Your task to perform on an android device: Play the last video I watched on Youtube Image 0: 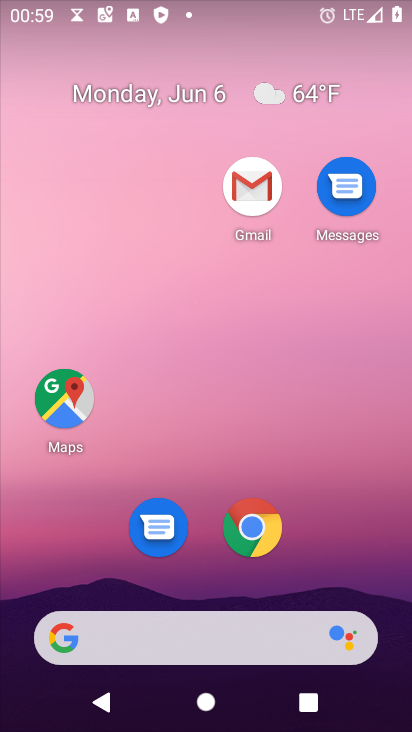
Step 0: drag from (325, 529) to (297, 95)
Your task to perform on an android device: Play the last video I watched on Youtube Image 1: 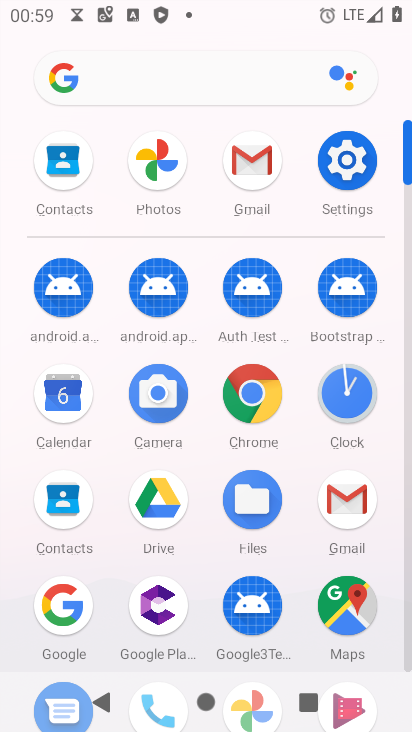
Step 1: drag from (285, 632) to (333, 252)
Your task to perform on an android device: Play the last video I watched on Youtube Image 2: 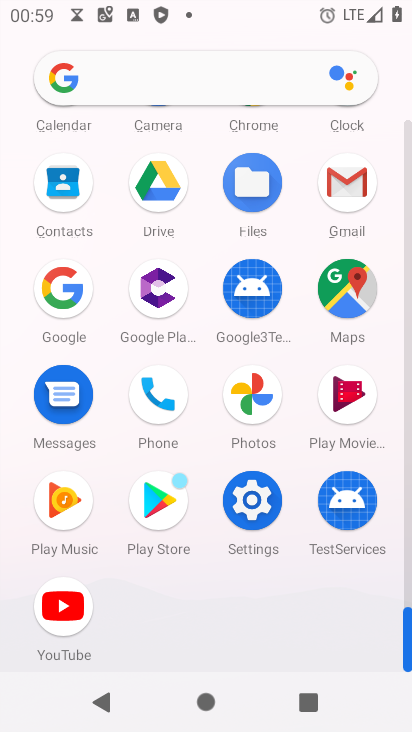
Step 2: click (60, 593)
Your task to perform on an android device: Play the last video I watched on Youtube Image 3: 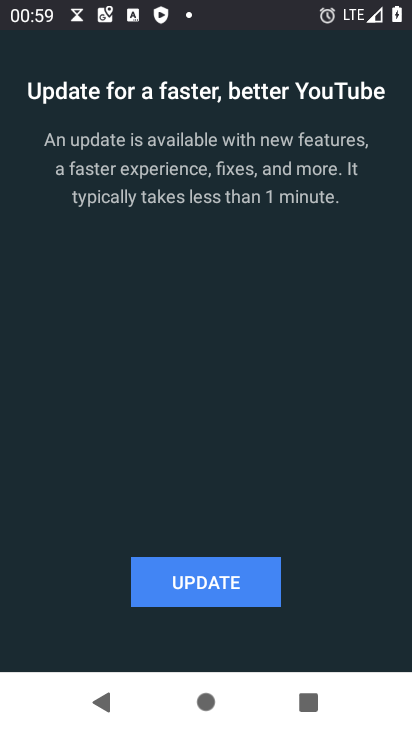
Step 3: click (253, 585)
Your task to perform on an android device: Play the last video I watched on Youtube Image 4: 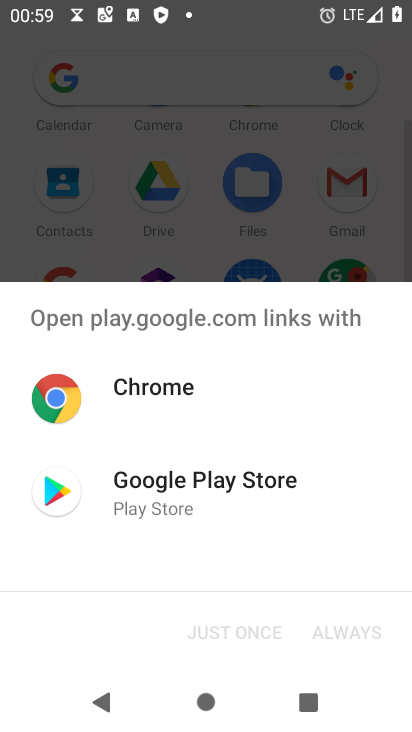
Step 4: click (268, 494)
Your task to perform on an android device: Play the last video I watched on Youtube Image 5: 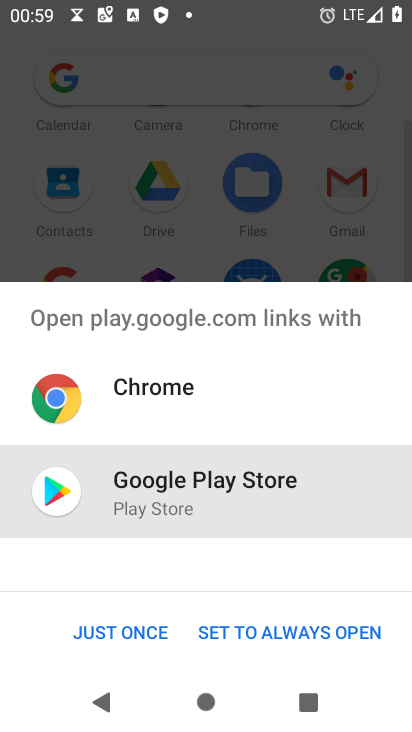
Step 5: click (317, 628)
Your task to perform on an android device: Play the last video I watched on Youtube Image 6: 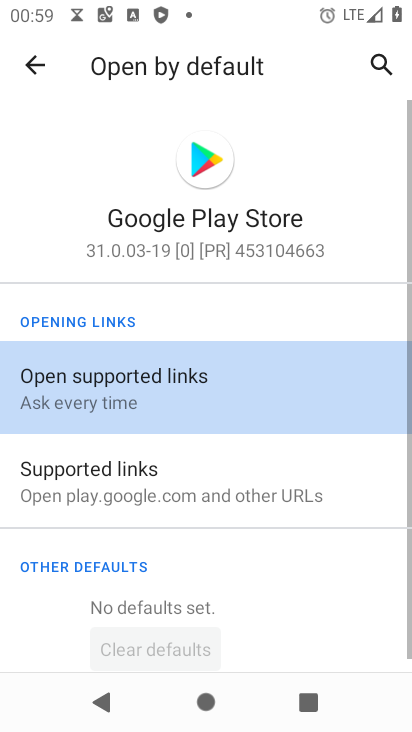
Step 6: drag from (285, 585) to (273, 207)
Your task to perform on an android device: Play the last video I watched on Youtube Image 7: 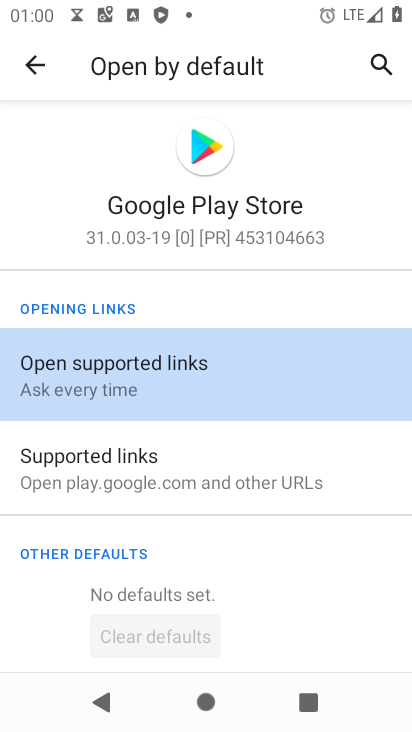
Step 7: click (246, 380)
Your task to perform on an android device: Play the last video I watched on Youtube Image 8: 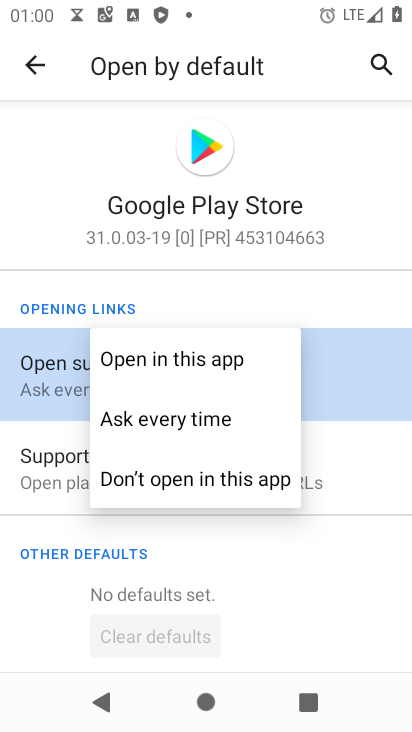
Step 8: click (179, 354)
Your task to perform on an android device: Play the last video I watched on Youtube Image 9: 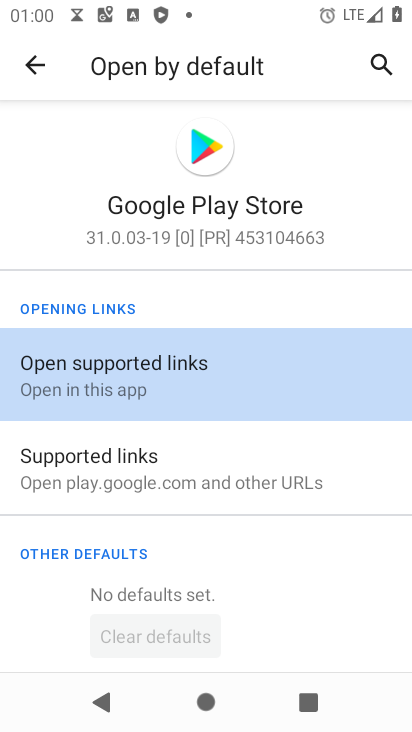
Step 9: click (216, 481)
Your task to perform on an android device: Play the last video I watched on Youtube Image 10: 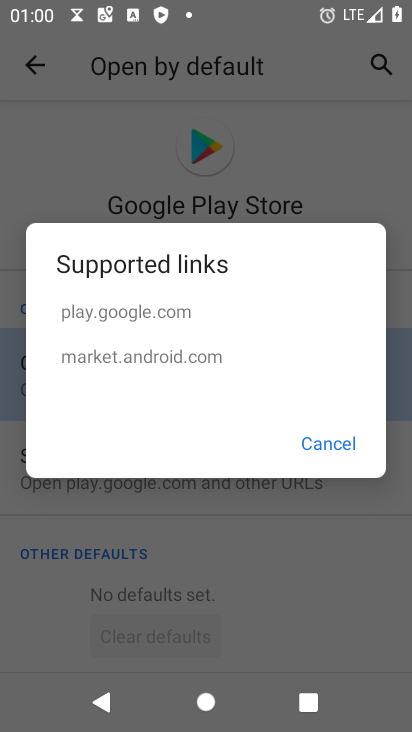
Step 10: click (315, 440)
Your task to perform on an android device: Play the last video I watched on Youtube Image 11: 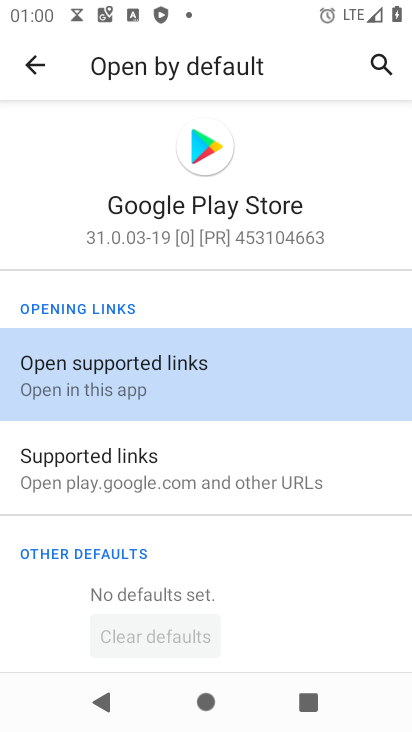
Step 11: click (152, 475)
Your task to perform on an android device: Play the last video I watched on Youtube Image 12: 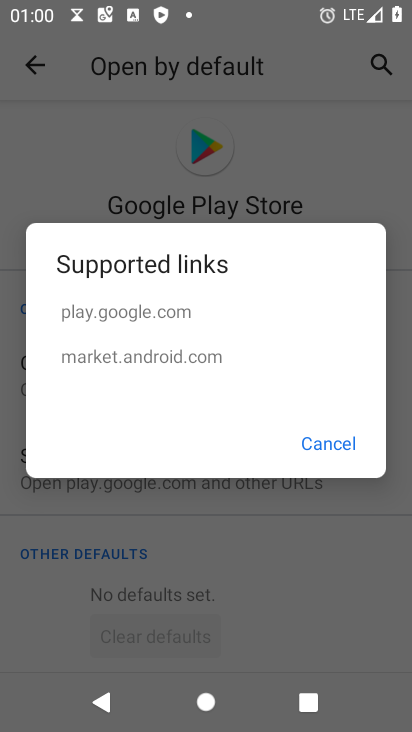
Step 12: click (166, 293)
Your task to perform on an android device: Play the last video I watched on Youtube Image 13: 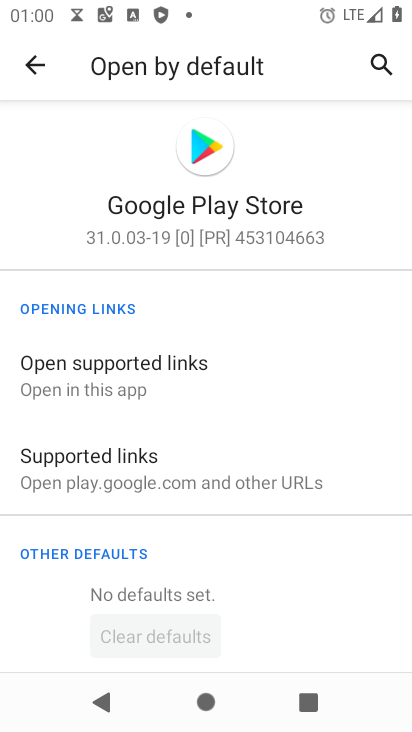
Step 13: drag from (267, 607) to (260, 257)
Your task to perform on an android device: Play the last video I watched on Youtube Image 14: 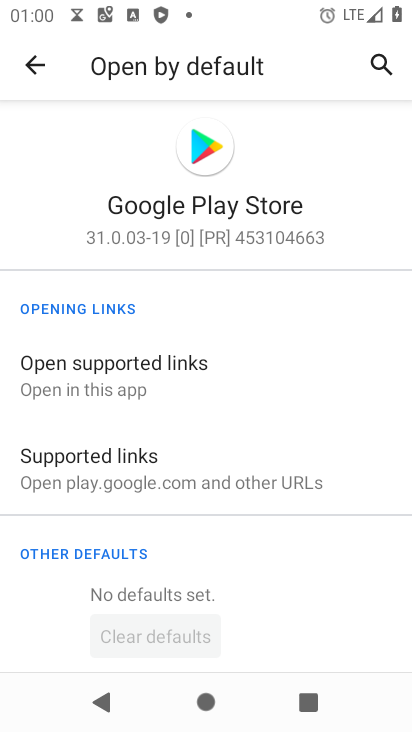
Step 14: click (163, 587)
Your task to perform on an android device: Play the last video I watched on Youtube Image 15: 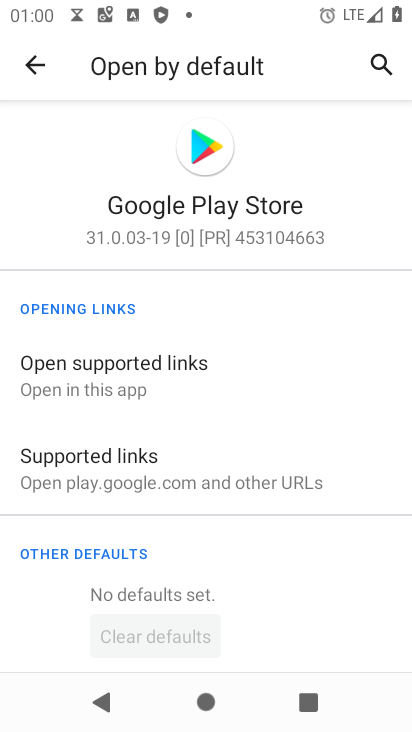
Step 15: press back button
Your task to perform on an android device: Play the last video I watched on Youtube Image 16: 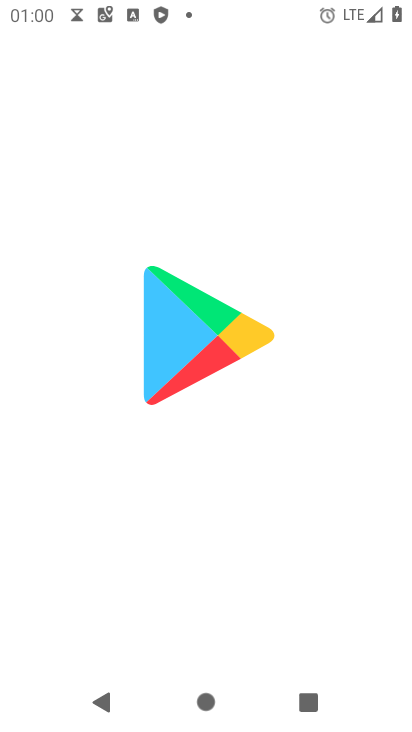
Step 16: click (278, 387)
Your task to perform on an android device: Play the last video I watched on Youtube Image 17: 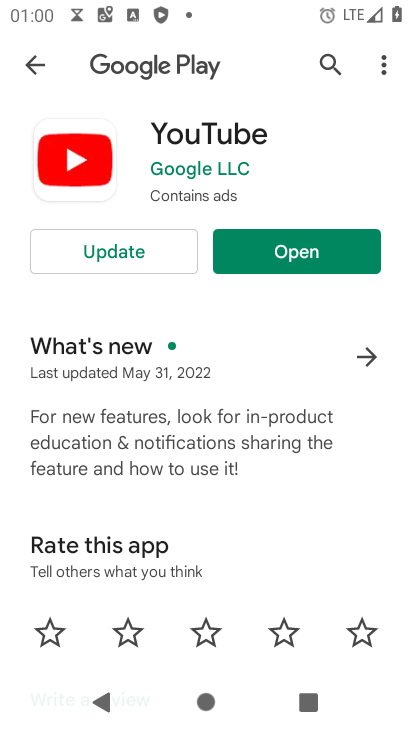
Step 17: click (107, 258)
Your task to perform on an android device: Play the last video I watched on Youtube Image 18: 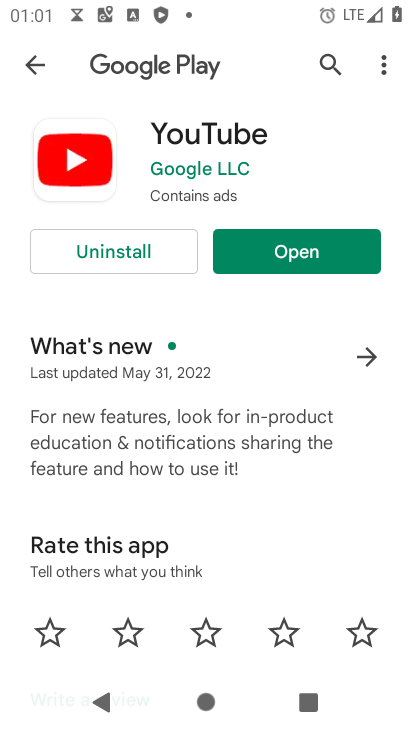
Step 18: click (264, 246)
Your task to perform on an android device: Play the last video I watched on Youtube Image 19: 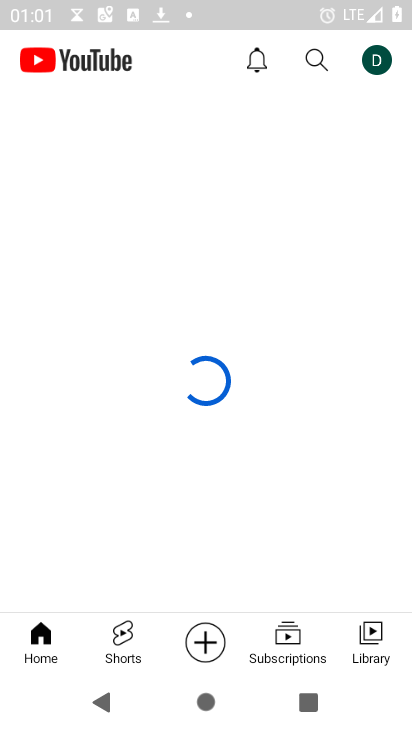
Step 19: click (365, 630)
Your task to perform on an android device: Play the last video I watched on Youtube Image 20: 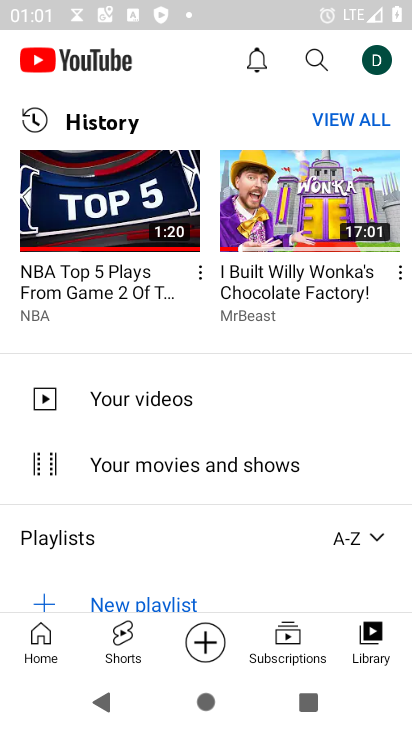
Step 20: click (101, 233)
Your task to perform on an android device: Play the last video I watched on Youtube Image 21: 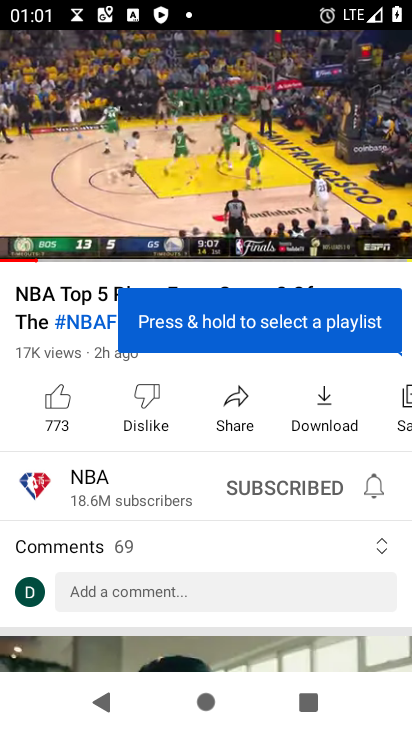
Step 21: task complete